Your task to perform on an android device: find which apps use the phone's location Image 0: 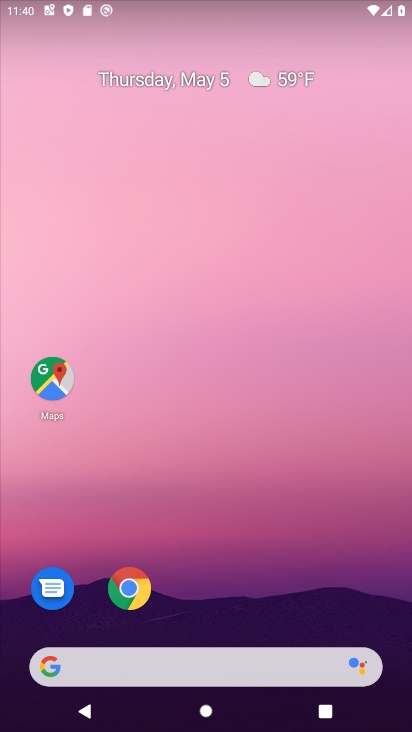
Step 0: drag from (319, 540) to (352, 44)
Your task to perform on an android device: find which apps use the phone's location Image 1: 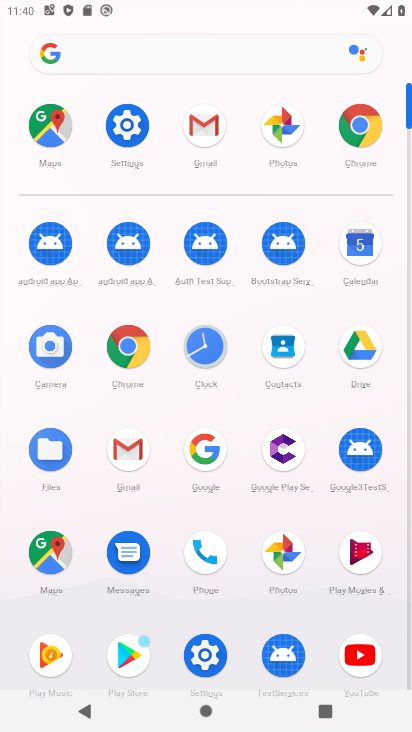
Step 1: click (131, 130)
Your task to perform on an android device: find which apps use the phone's location Image 2: 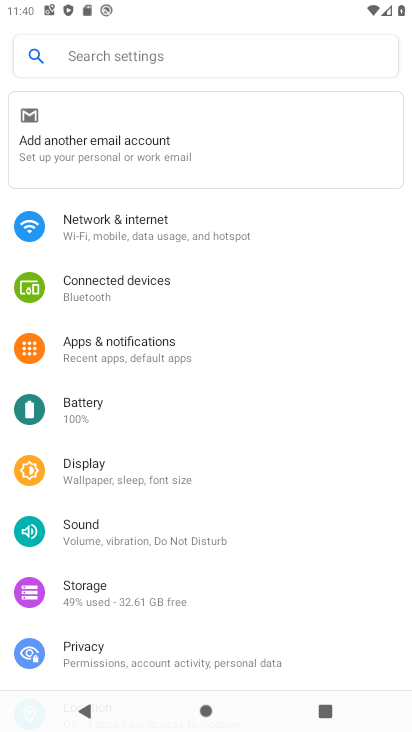
Step 2: drag from (258, 545) to (296, 216)
Your task to perform on an android device: find which apps use the phone's location Image 3: 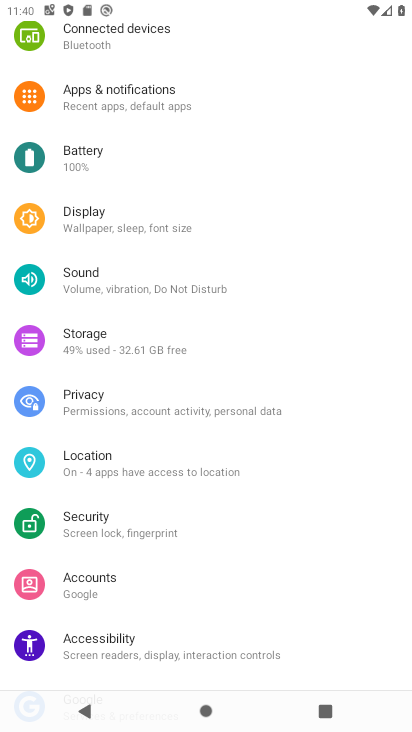
Step 3: click (152, 465)
Your task to perform on an android device: find which apps use the phone's location Image 4: 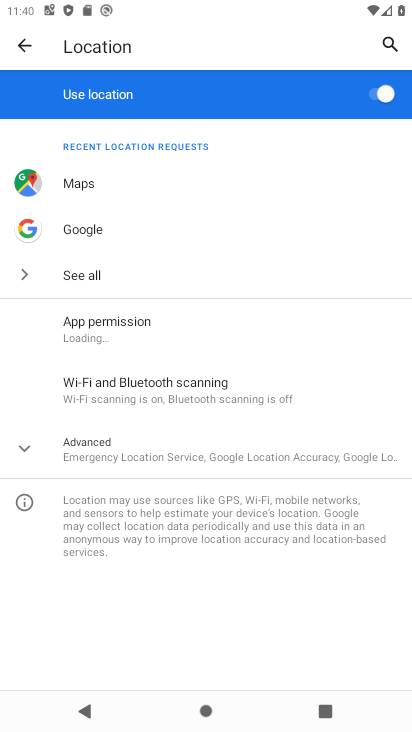
Step 4: click (108, 317)
Your task to perform on an android device: find which apps use the phone's location Image 5: 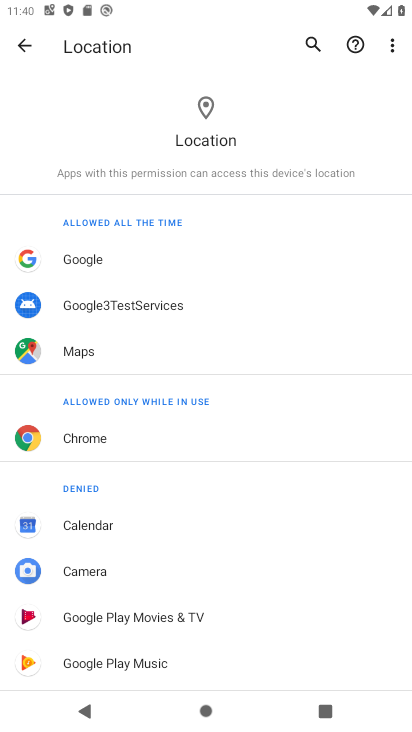
Step 5: task complete